Your task to perform on an android device: turn pop-ups off in chrome Image 0: 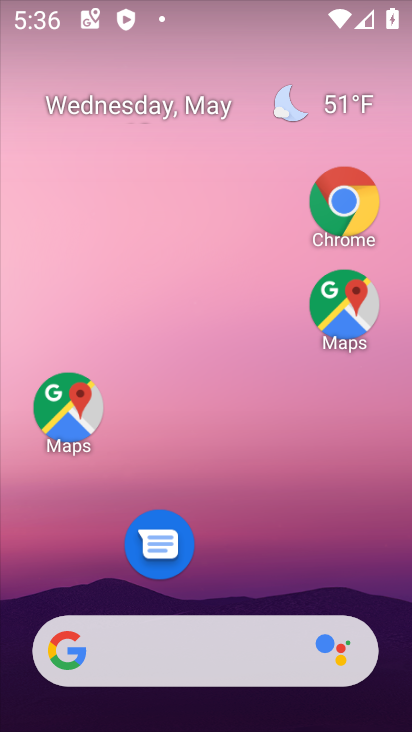
Step 0: click (236, 22)
Your task to perform on an android device: turn pop-ups off in chrome Image 1: 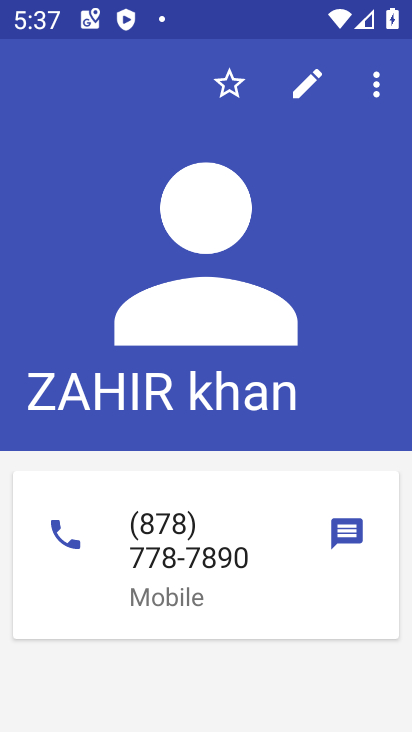
Step 1: press home button
Your task to perform on an android device: turn pop-ups off in chrome Image 2: 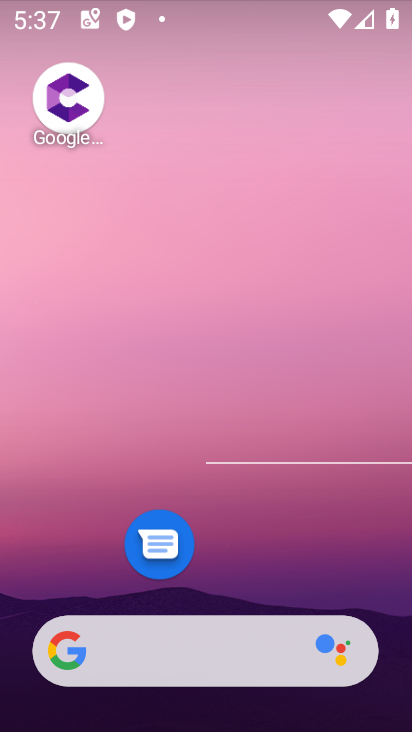
Step 2: drag from (240, 574) to (223, 25)
Your task to perform on an android device: turn pop-ups off in chrome Image 3: 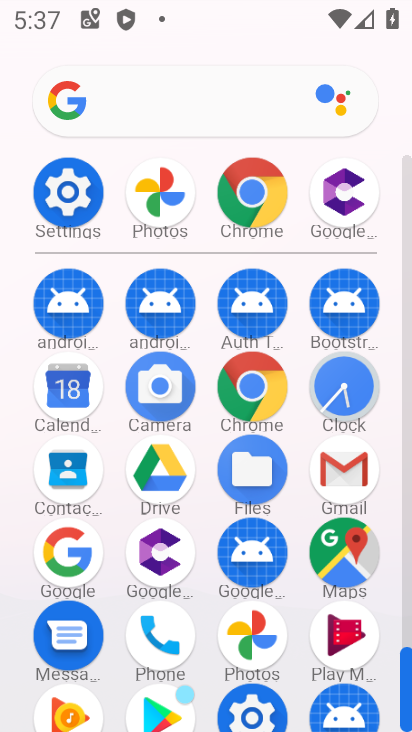
Step 3: click (254, 203)
Your task to perform on an android device: turn pop-ups off in chrome Image 4: 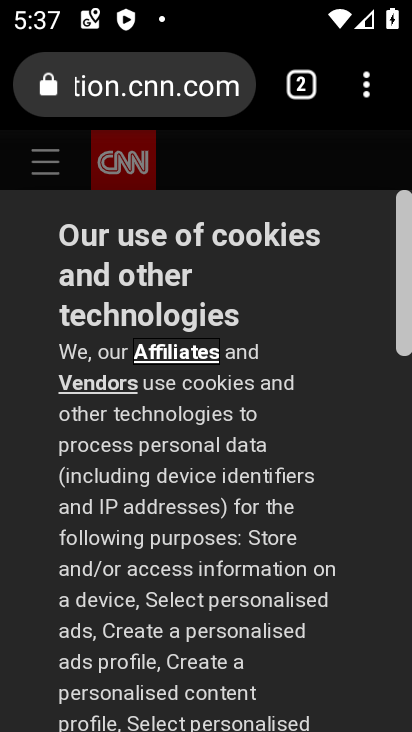
Step 4: click (367, 86)
Your task to perform on an android device: turn pop-ups off in chrome Image 5: 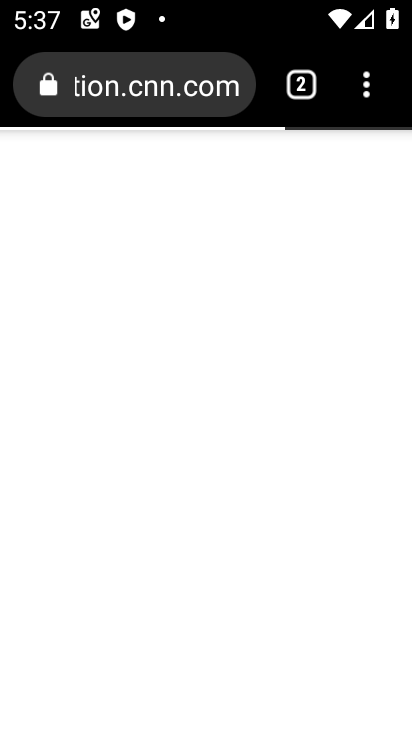
Step 5: click (371, 90)
Your task to perform on an android device: turn pop-ups off in chrome Image 6: 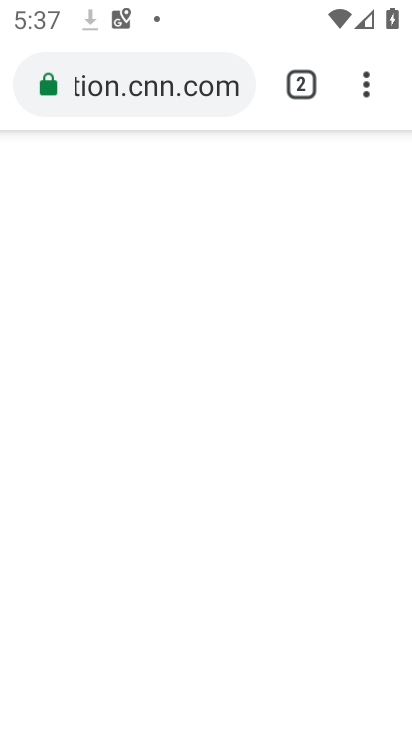
Step 6: click (367, 95)
Your task to perform on an android device: turn pop-ups off in chrome Image 7: 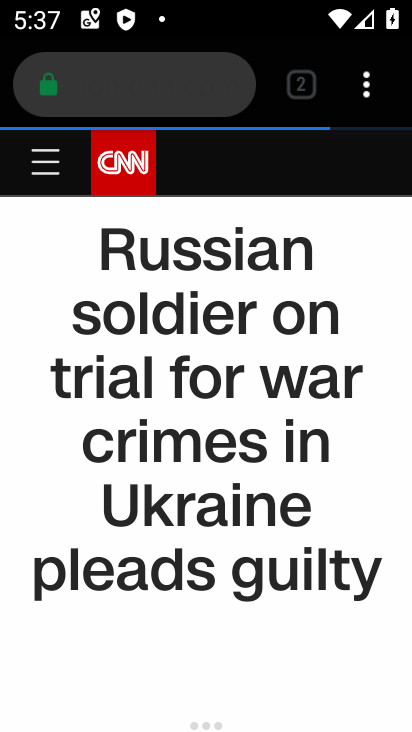
Step 7: click (369, 92)
Your task to perform on an android device: turn pop-ups off in chrome Image 8: 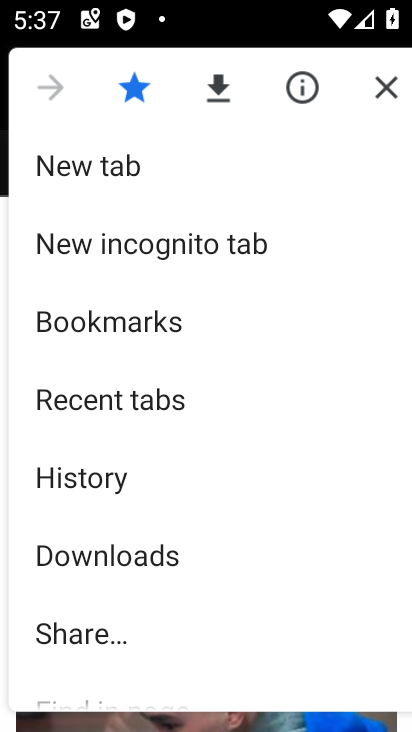
Step 8: drag from (144, 572) to (93, 310)
Your task to perform on an android device: turn pop-ups off in chrome Image 9: 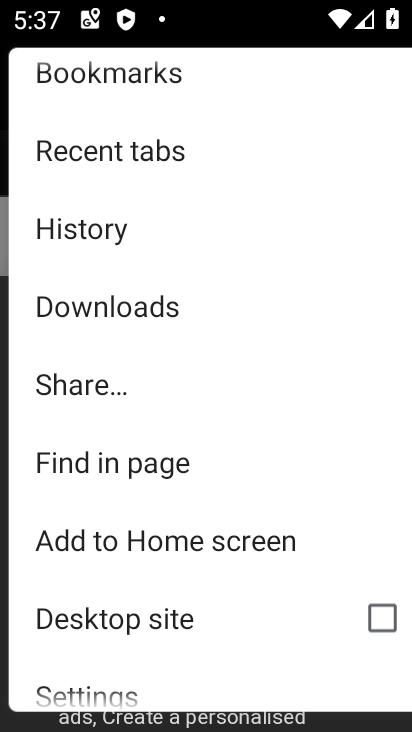
Step 9: drag from (165, 564) to (184, 261)
Your task to perform on an android device: turn pop-ups off in chrome Image 10: 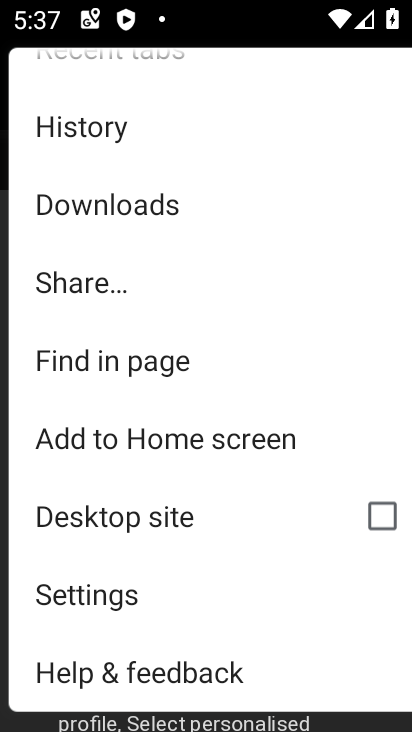
Step 10: click (88, 584)
Your task to perform on an android device: turn pop-ups off in chrome Image 11: 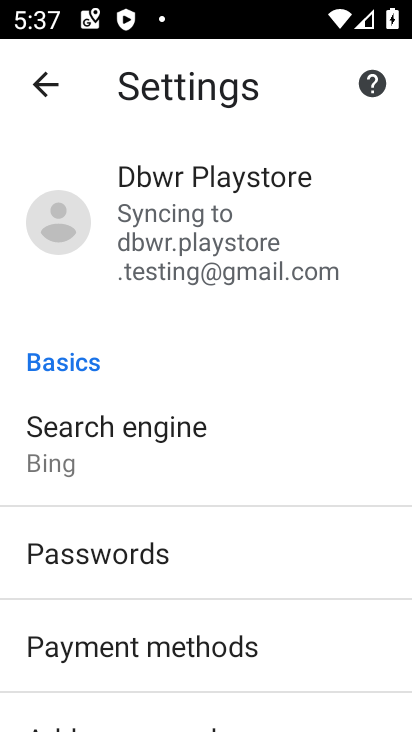
Step 11: drag from (176, 628) to (221, 269)
Your task to perform on an android device: turn pop-ups off in chrome Image 12: 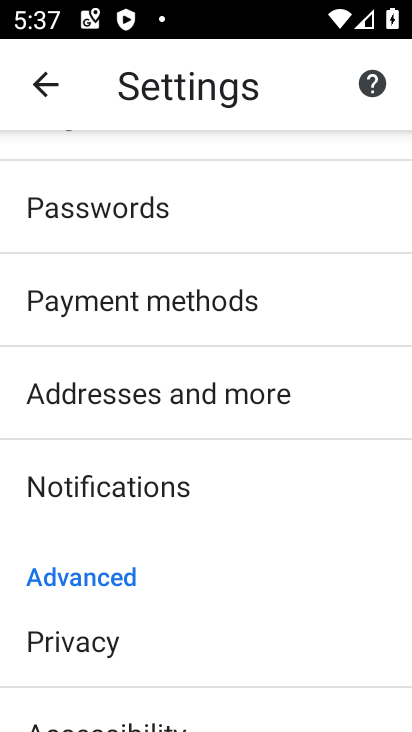
Step 12: drag from (149, 576) to (162, 312)
Your task to perform on an android device: turn pop-ups off in chrome Image 13: 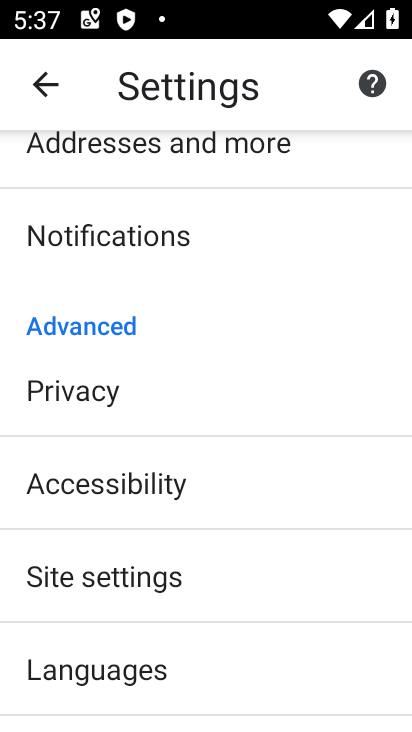
Step 13: click (111, 575)
Your task to perform on an android device: turn pop-ups off in chrome Image 14: 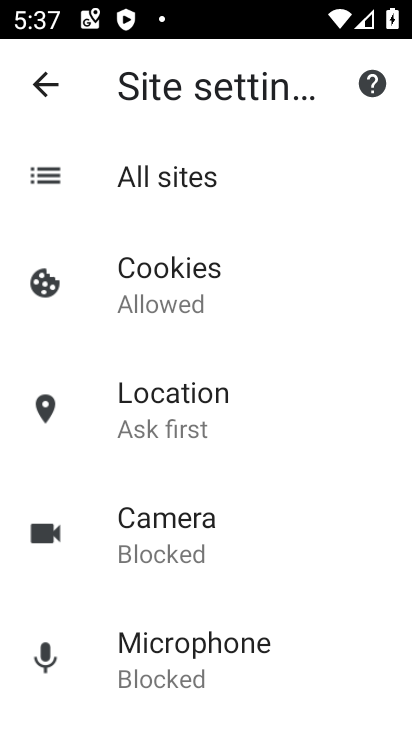
Step 14: drag from (189, 589) to (229, 253)
Your task to perform on an android device: turn pop-ups off in chrome Image 15: 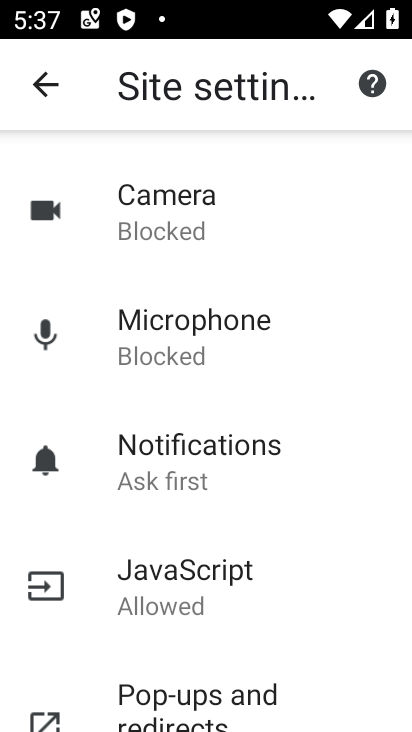
Step 15: drag from (182, 615) to (206, 351)
Your task to perform on an android device: turn pop-ups off in chrome Image 16: 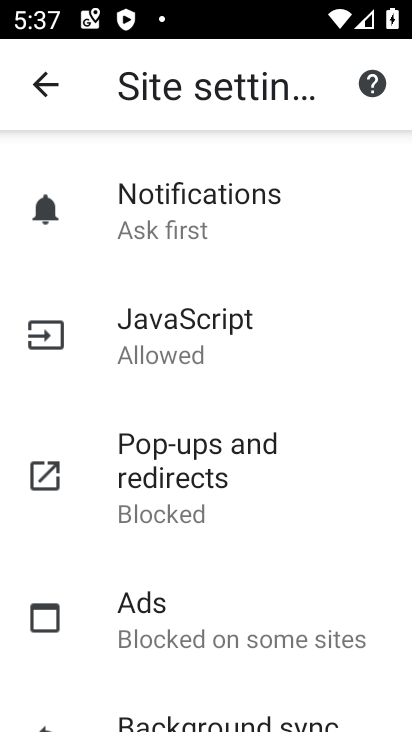
Step 16: click (204, 477)
Your task to perform on an android device: turn pop-ups off in chrome Image 17: 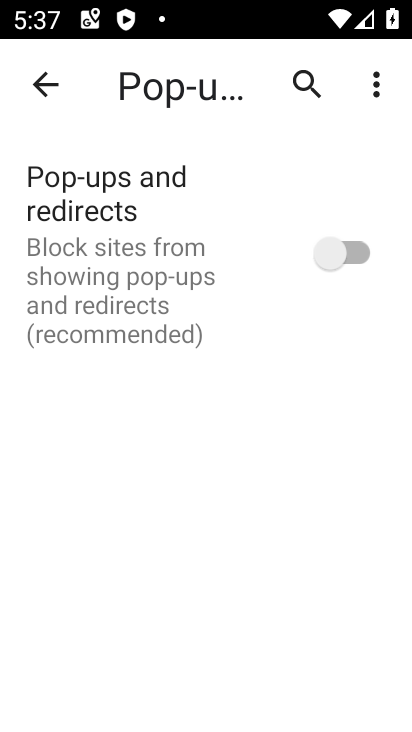
Step 17: task complete